Your task to perform on an android device: Go to Google maps Image 0: 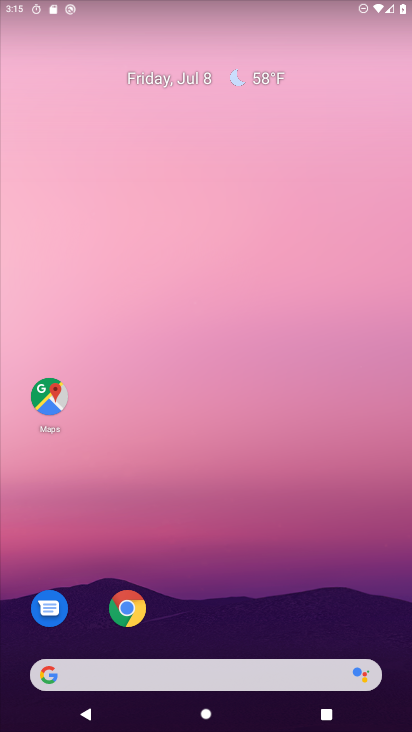
Step 0: drag from (249, 723) to (232, 122)
Your task to perform on an android device: Go to Google maps Image 1: 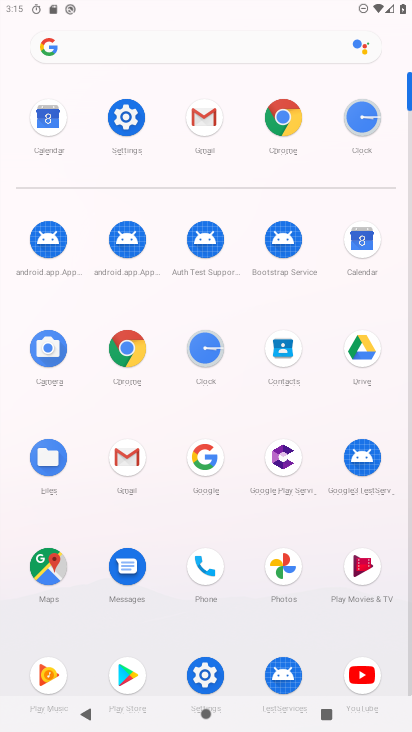
Step 1: click (46, 564)
Your task to perform on an android device: Go to Google maps Image 2: 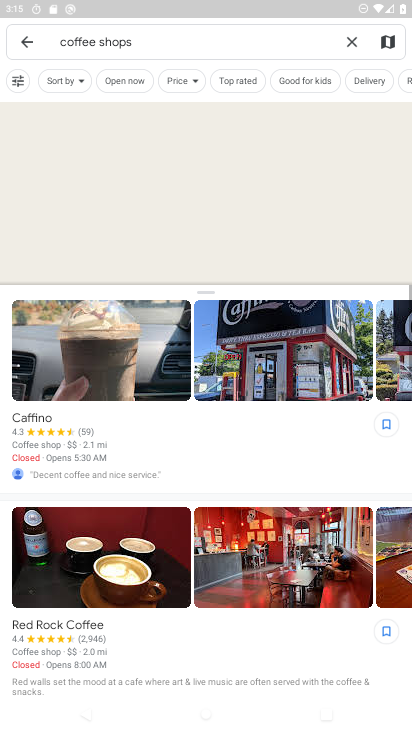
Step 2: task complete